Your task to perform on an android device: Search for vegetarian restaurants on Maps Image 0: 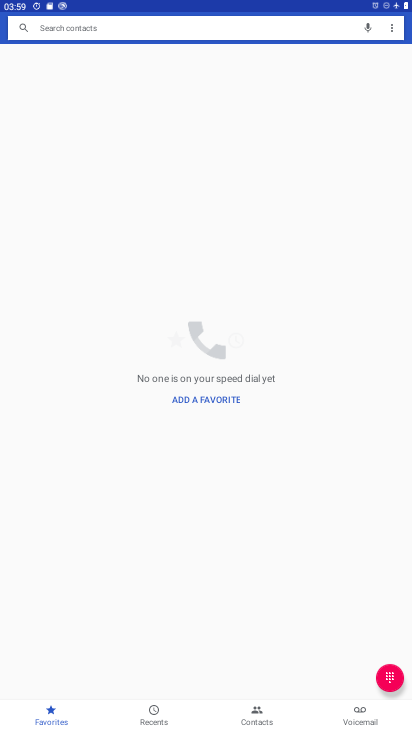
Step 0: press home button
Your task to perform on an android device: Search for vegetarian restaurants on Maps Image 1: 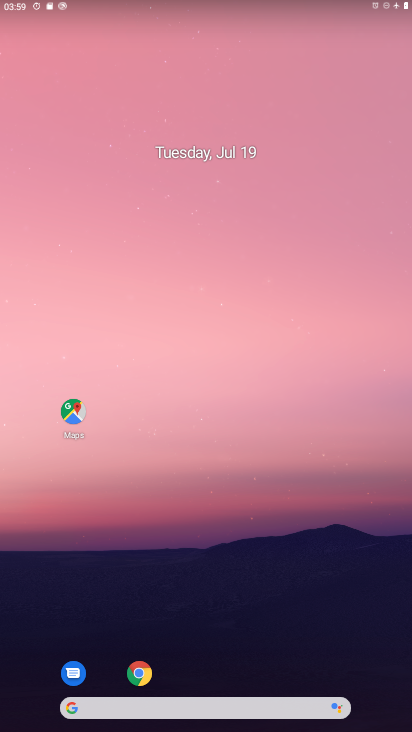
Step 1: click (72, 406)
Your task to perform on an android device: Search for vegetarian restaurants on Maps Image 2: 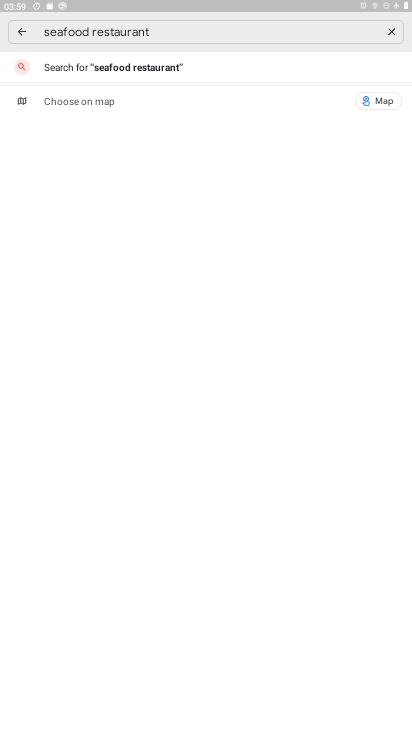
Step 2: click (374, 18)
Your task to perform on an android device: Search for vegetarian restaurants on Maps Image 3: 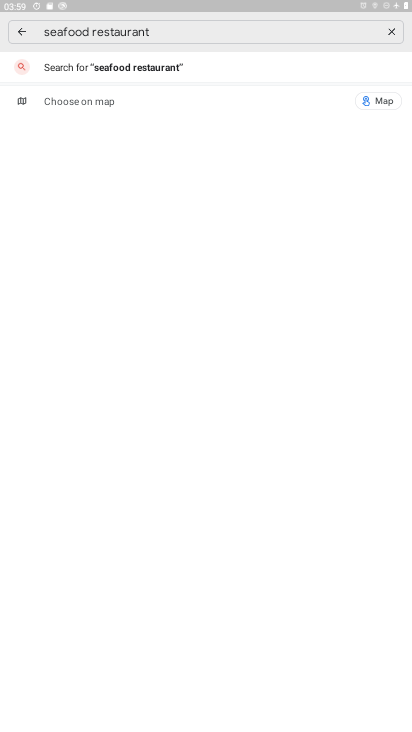
Step 3: click (203, 32)
Your task to perform on an android device: Search for vegetarian restaurants on Maps Image 4: 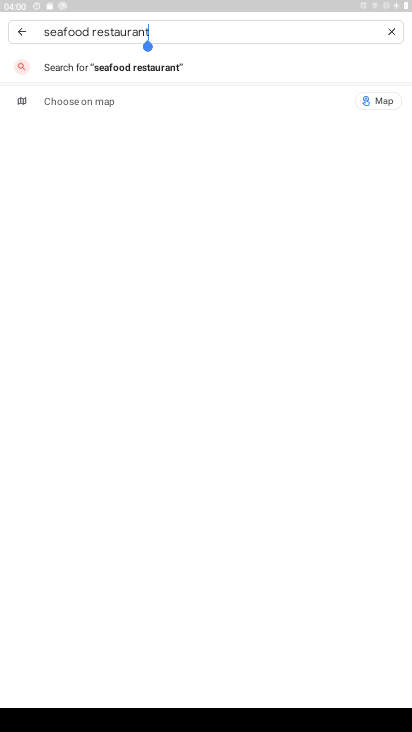
Step 4: click (388, 31)
Your task to perform on an android device: Search for vegetarian restaurants on Maps Image 5: 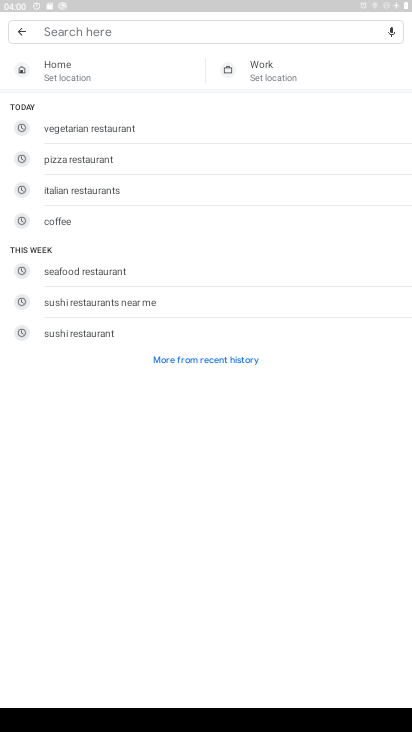
Step 5: type "vegetarian restaurants"
Your task to perform on an android device: Search for vegetarian restaurants on Maps Image 6: 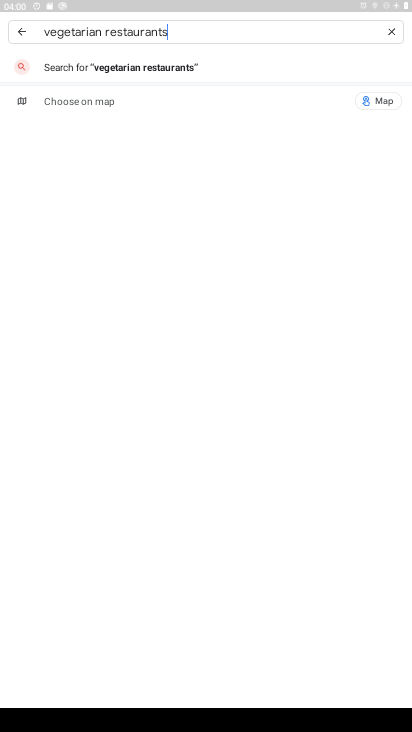
Step 6: click (167, 62)
Your task to perform on an android device: Search for vegetarian restaurants on Maps Image 7: 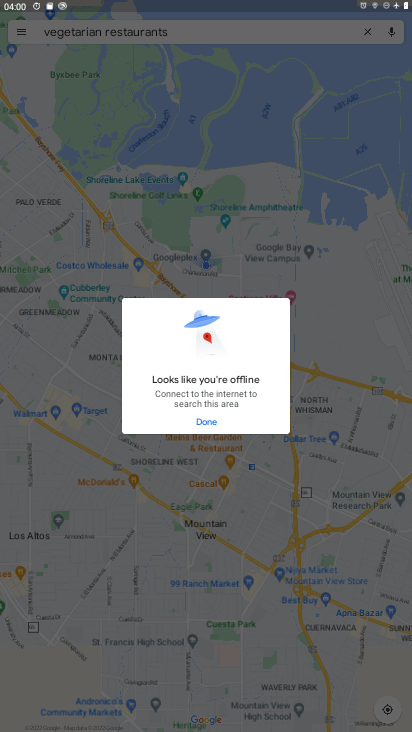
Step 7: task complete